Your task to perform on an android device: Go to Google maps Image 0: 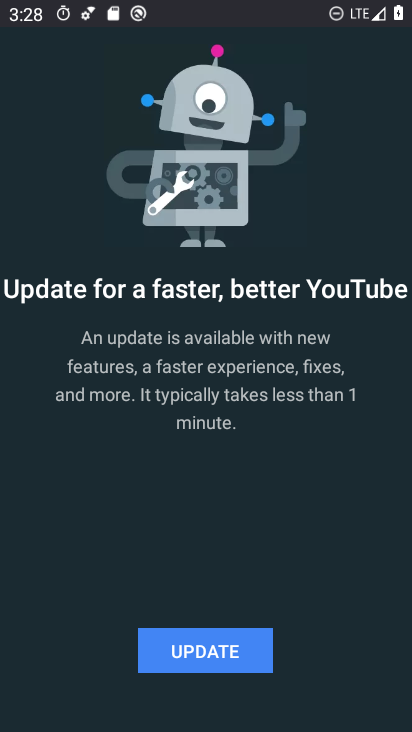
Step 0: press home button
Your task to perform on an android device: Go to Google maps Image 1: 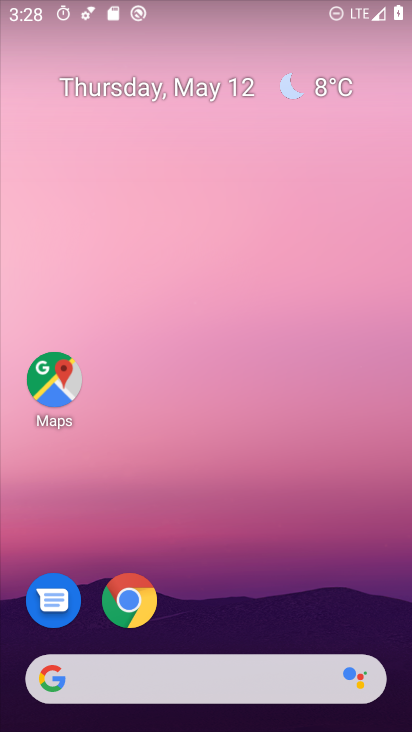
Step 1: drag from (194, 729) to (203, 155)
Your task to perform on an android device: Go to Google maps Image 2: 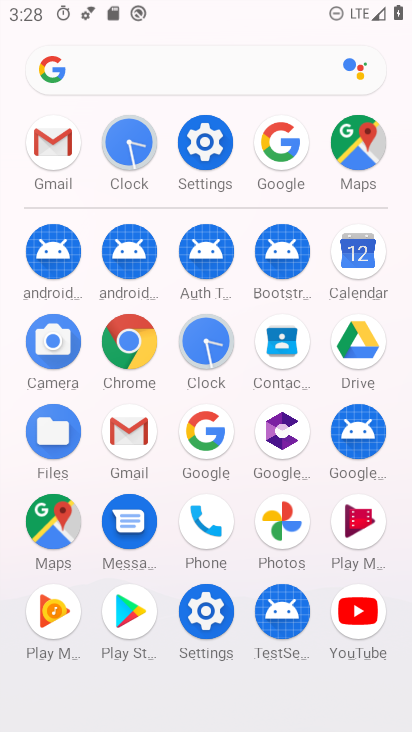
Step 2: click (52, 519)
Your task to perform on an android device: Go to Google maps Image 3: 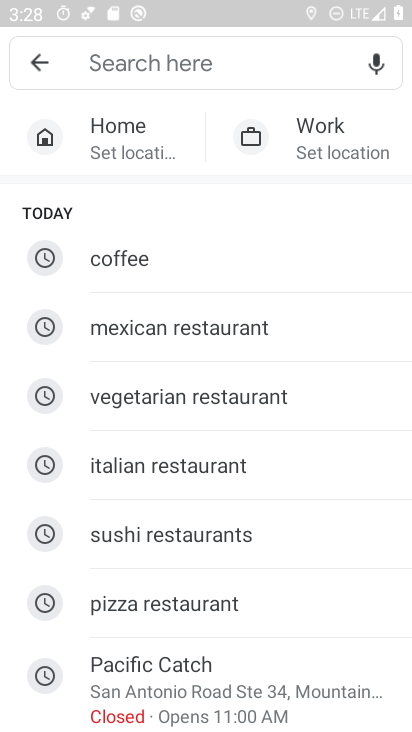
Step 3: click (37, 59)
Your task to perform on an android device: Go to Google maps Image 4: 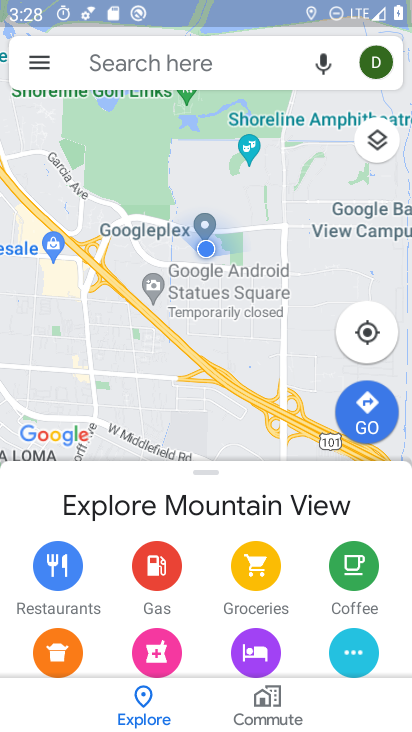
Step 4: task complete